Your task to perform on an android device: open wifi settings Image 0: 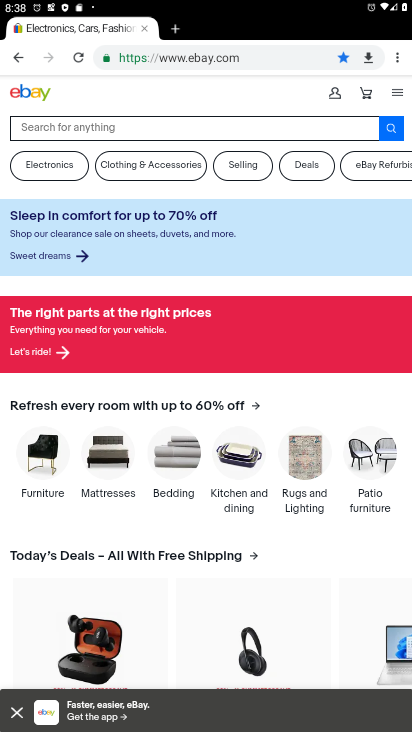
Step 0: press home button
Your task to perform on an android device: open wifi settings Image 1: 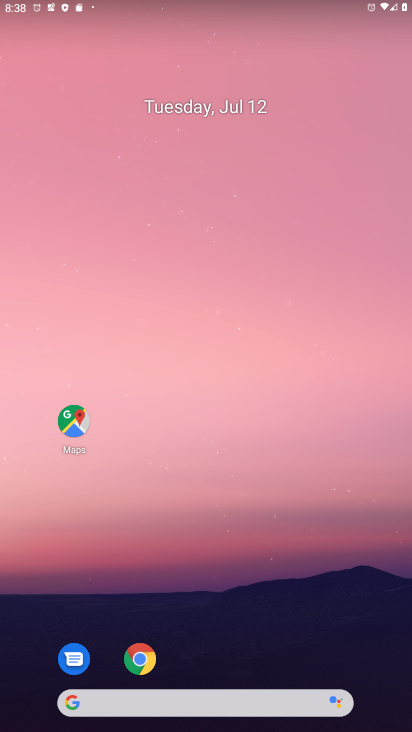
Step 1: drag from (224, 704) to (266, 109)
Your task to perform on an android device: open wifi settings Image 2: 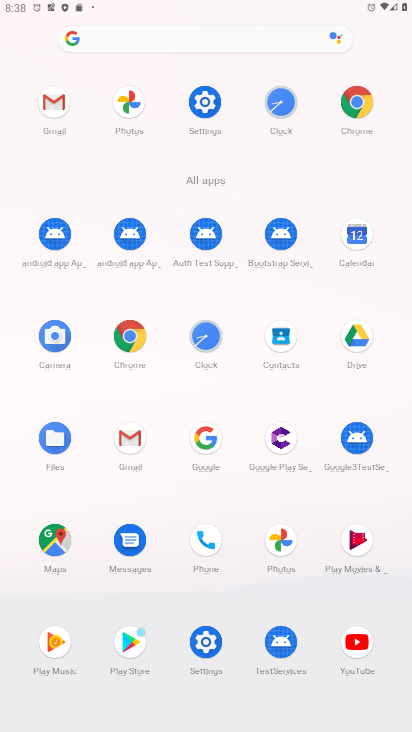
Step 2: click (204, 102)
Your task to perform on an android device: open wifi settings Image 3: 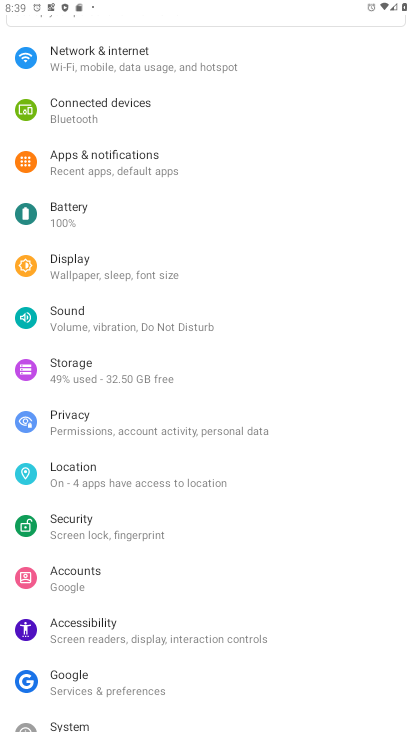
Step 3: click (138, 69)
Your task to perform on an android device: open wifi settings Image 4: 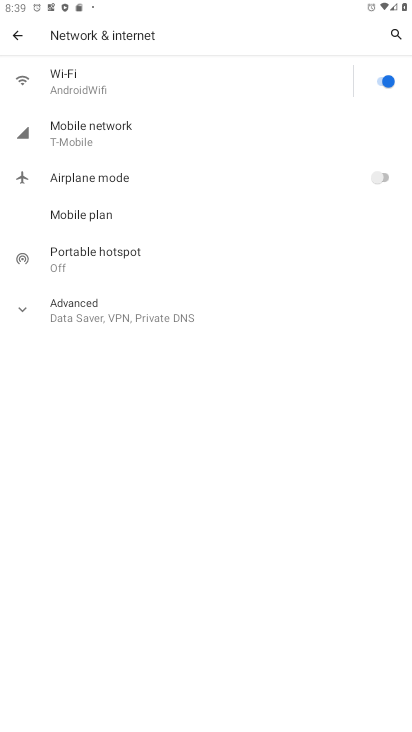
Step 4: click (80, 86)
Your task to perform on an android device: open wifi settings Image 5: 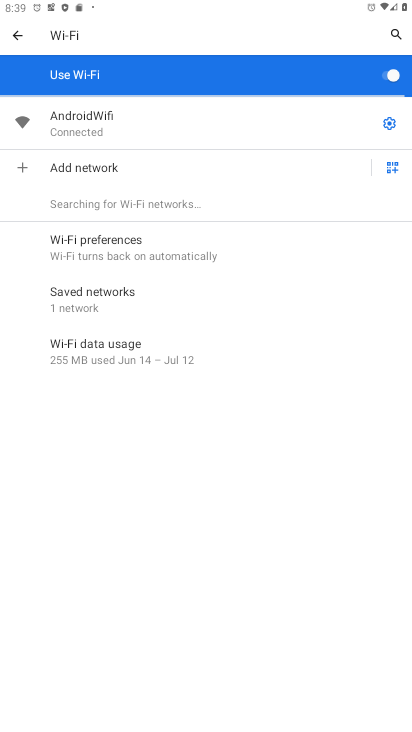
Step 5: click (388, 124)
Your task to perform on an android device: open wifi settings Image 6: 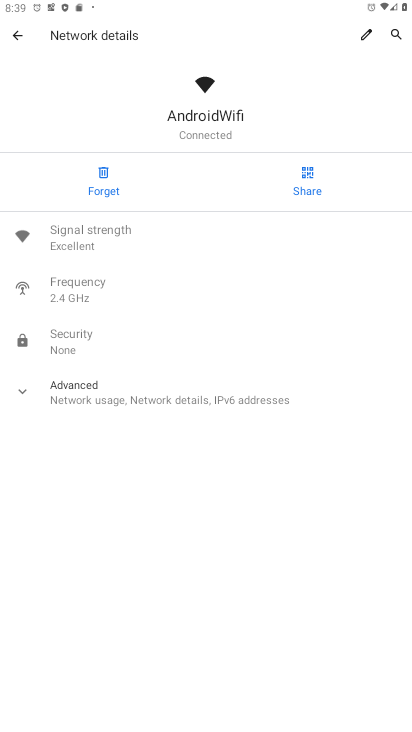
Step 6: task complete